Your task to perform on an android device: Open Google Image 0: 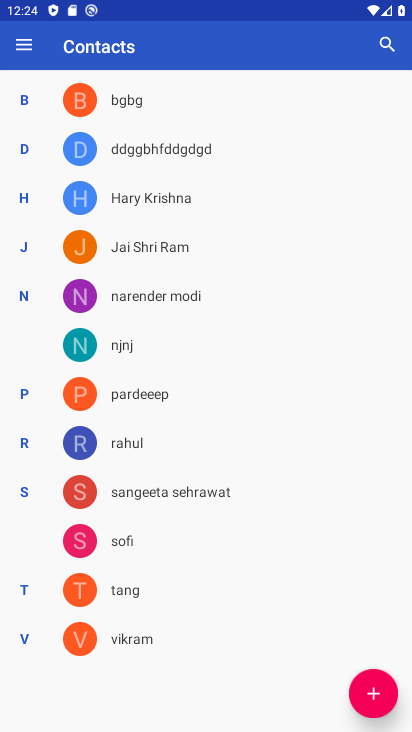
Step 0: press home button
Your task to perform on an android device: Open Google Image 1: 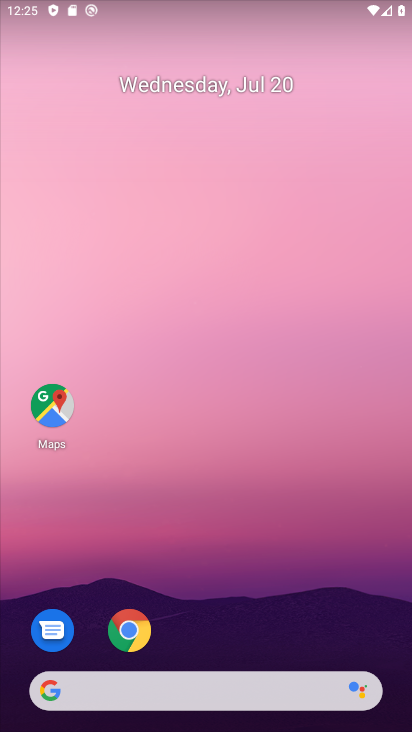
Step 1: click (49, 696)
Your task to perform on an android device: Open Google Image 2: 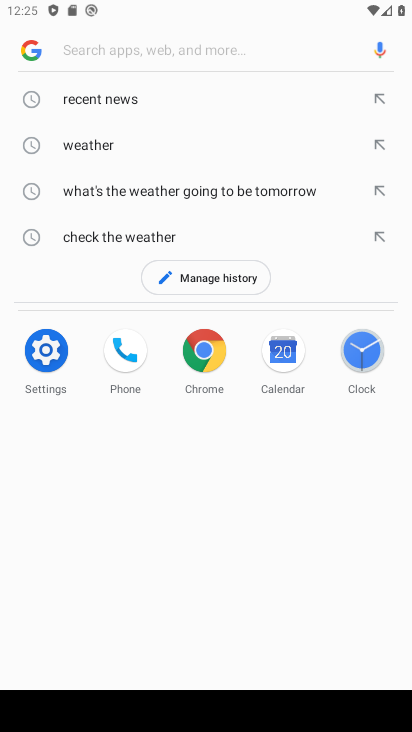
Step 2: click (29, 51)
Your task to perform on an android device: Open Google Image 3: 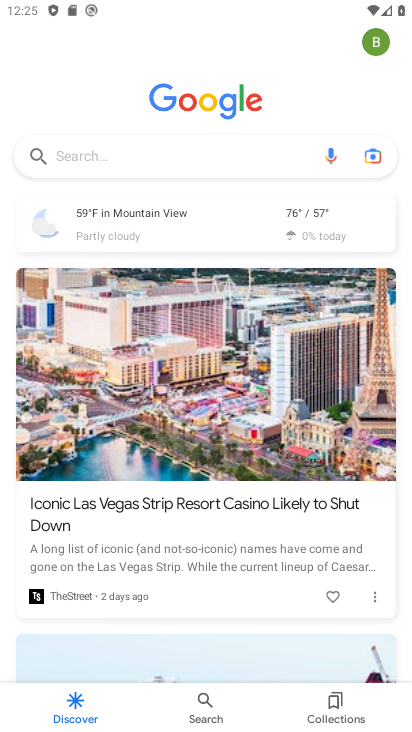
Step 3: task complete